Your task to perform on an android device: turn on bluetooth scan Image 0: 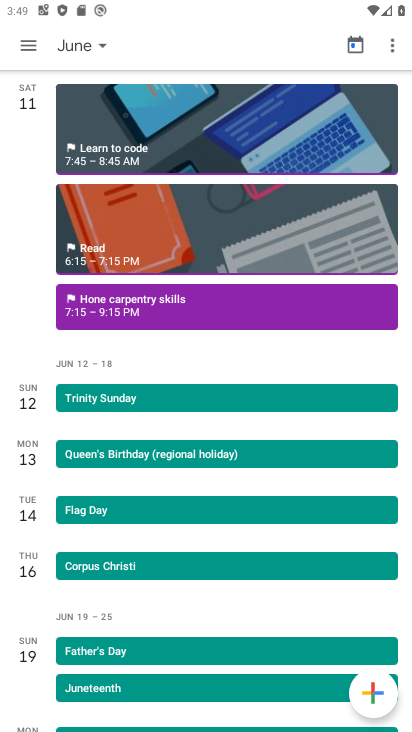
Step 0: press home button
Your task to perform on an android device: turn on bluetooth scan Image 1: 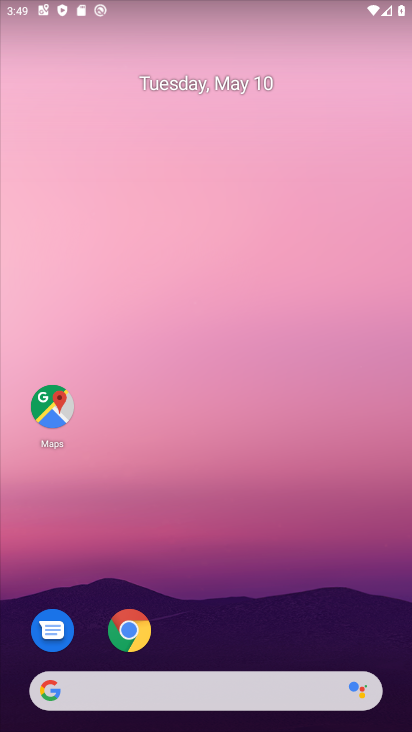
Step 1: drag from (214, 638) to (253, 28)
Your task to perform on an android device: turn on bluetooth scan Image 2: 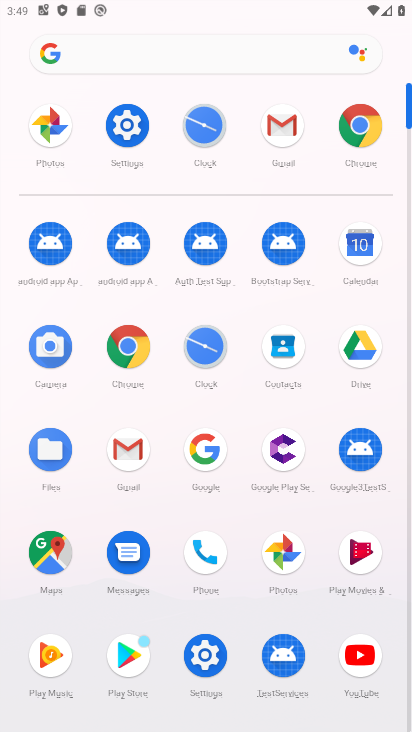
Step 2: click (124, 136)
Your task to perform on an android device: turn on bluetooth scan Image 3: 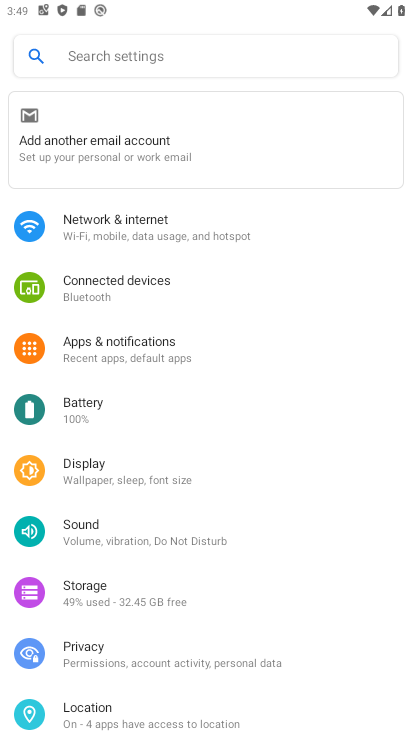
Step 3: click (83, 709)
Your task to perform on an android device: turn on bluetooth scan Image 4: 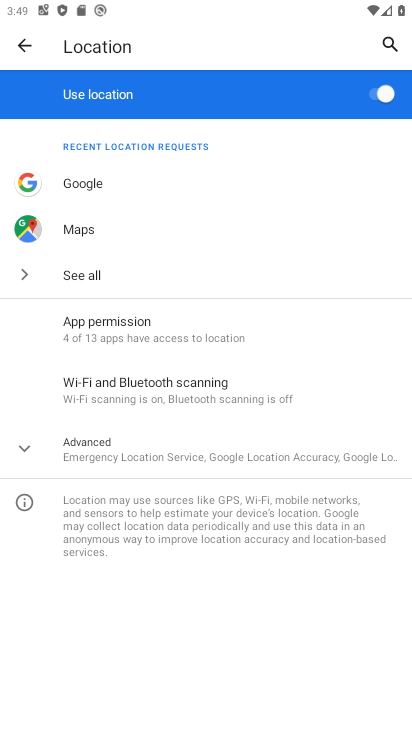
Step 4: click (189, 468)
Your task to perform on an android device: turn on bluetooth scan Image 5: 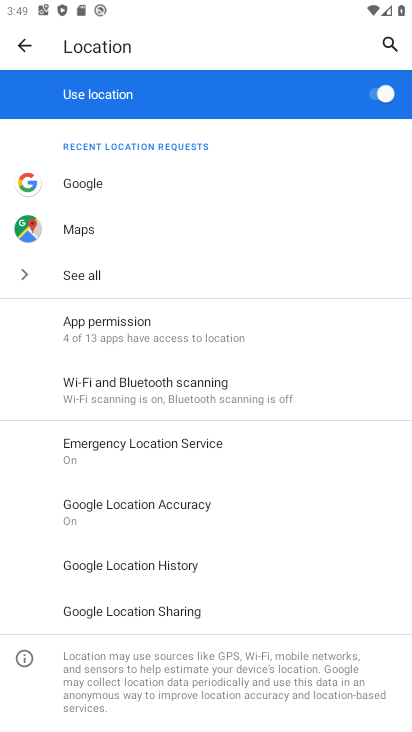
Step 5: drag from (222, 572) to (204, 160)
Your task to perform on an android device: turn on bluetooth scan Image 6: 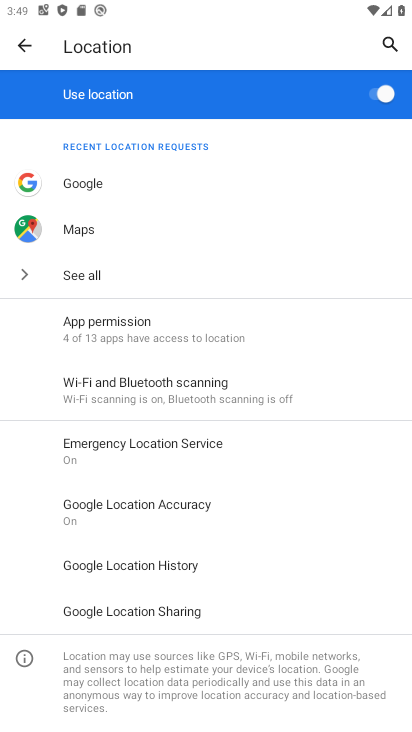
Step 6: click (155, 388)
Your task to perform on an android device: turn on bluetooth scan Image 7: 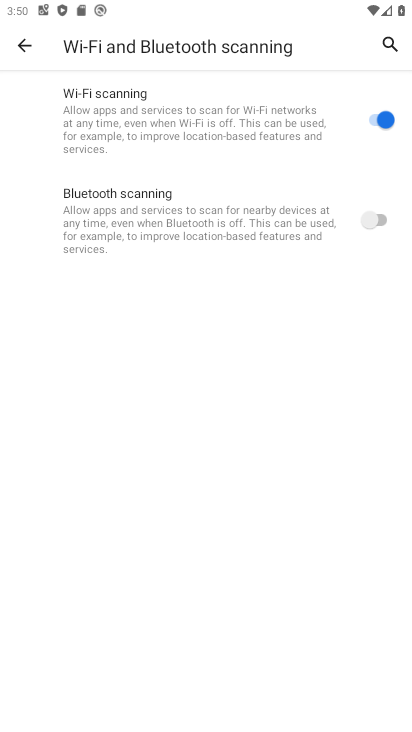
Step 7: click (387, 223)
Your task to perform on an android device: turn on bluetooth scan Image 8: 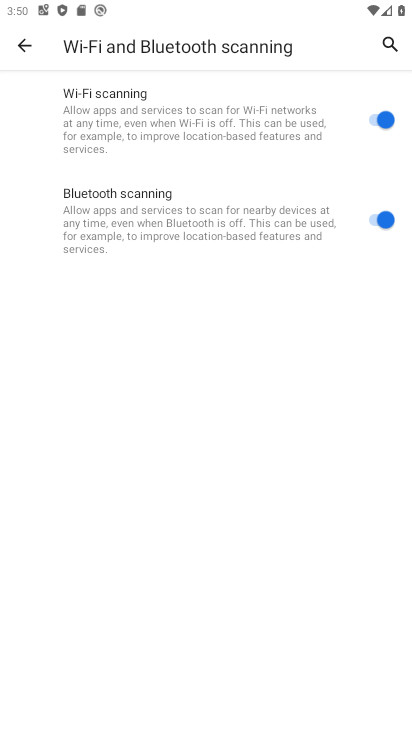
Step 8: task complete